Your task to perform on an android device: clear history in the chrome app Image 0: 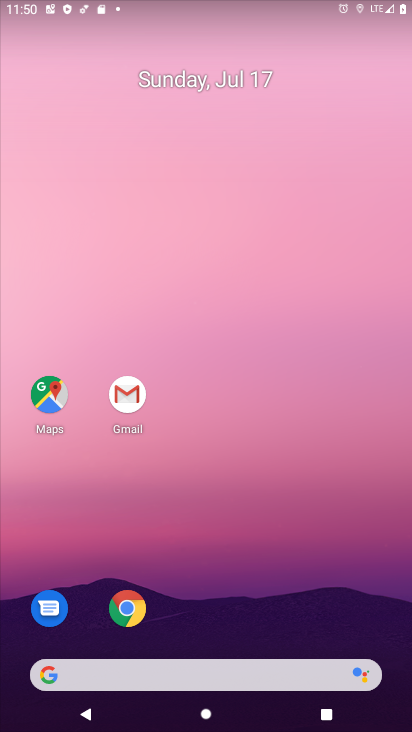
Step 0: click (129, 612)
Your task to perform on an android device: clear history in the chrome app Image 1: 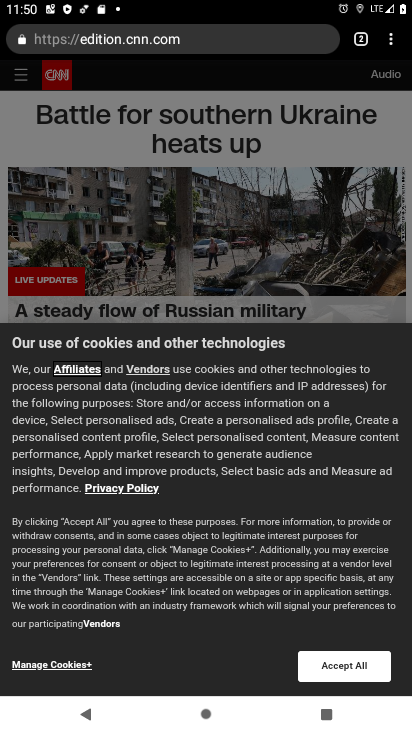
Step 1: drag from (393, 40) to (246, 221)
Your task to perform on an android device: clear history in the chrome app Image 2: 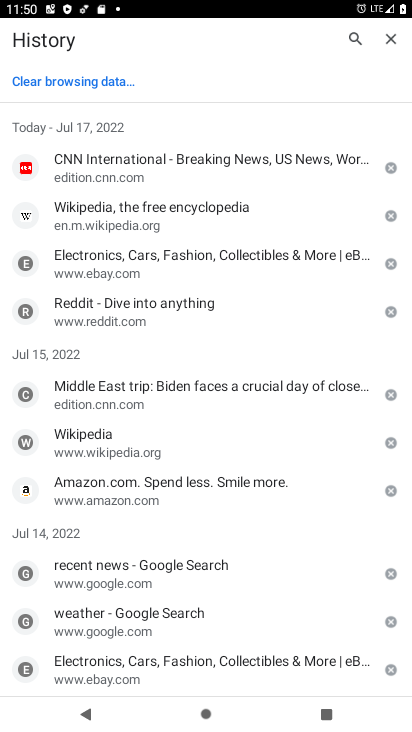
Step 2: click (54, 88)
Your task to perform on an android device: clear history in the chrome app Image 3: 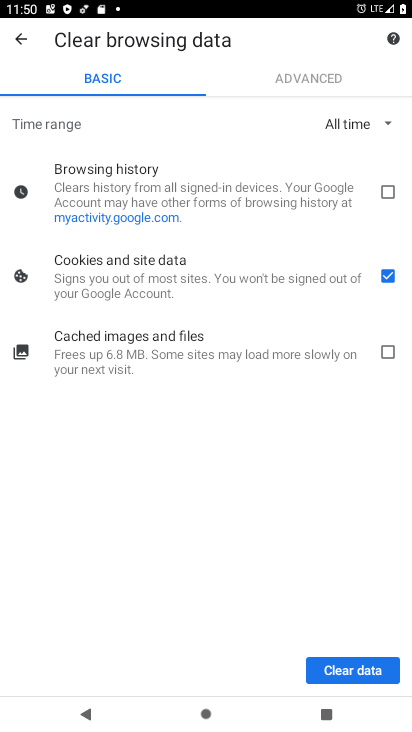
Step 3: click (367, 670)
Your task to perform on an android device: clear history in the chrome app Image 4: 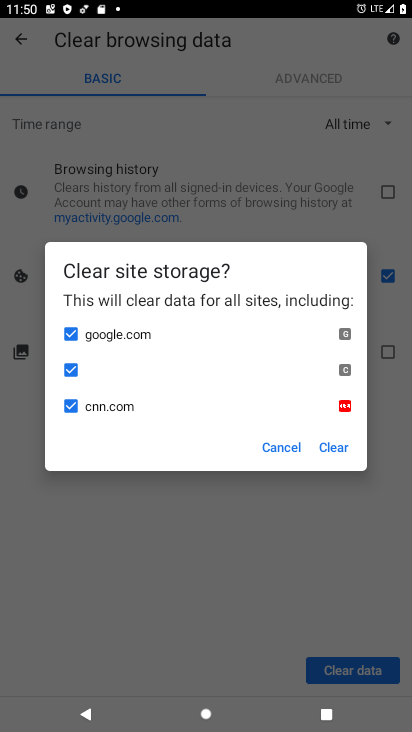
Step 4: click (336, 444)
Your task to perform on an android device: clear history in the chrome app Image 5: 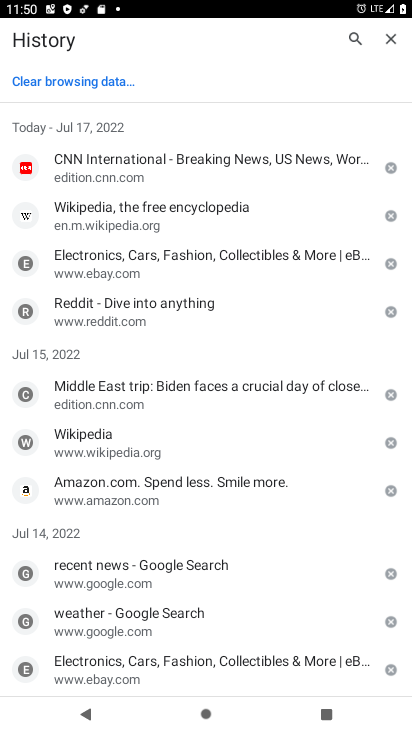
Step 5: task complete